Your task to perform on an android device: Open network settings Image 0: 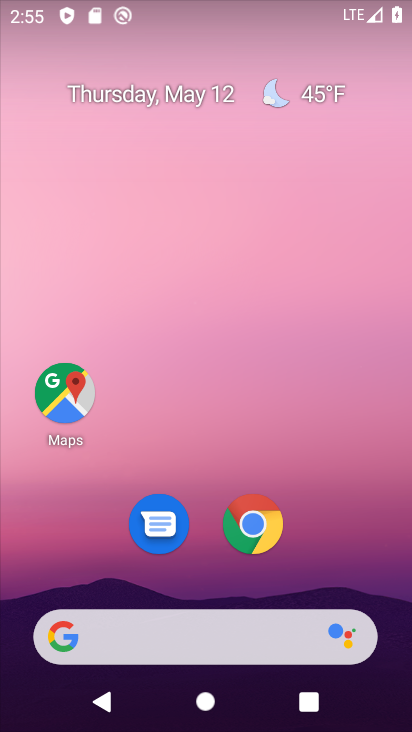
Step 0: drag from (239, 446) to (225, 15)
Your task to perform on an android device: Open network settings Image 1: 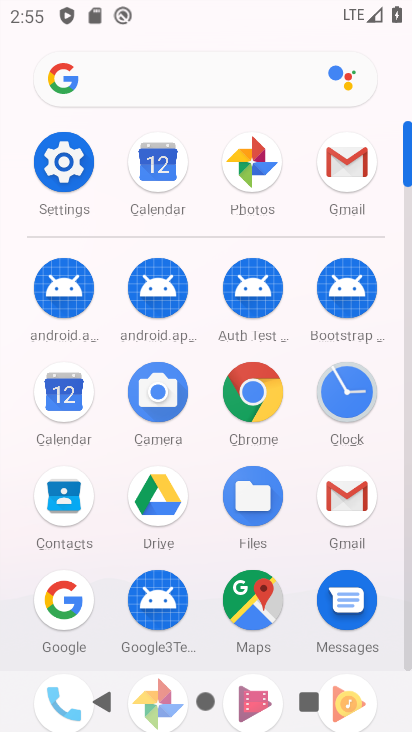
Step 1: click (159, 150)
Your task to perform on an android device: Open network settings Image 2: 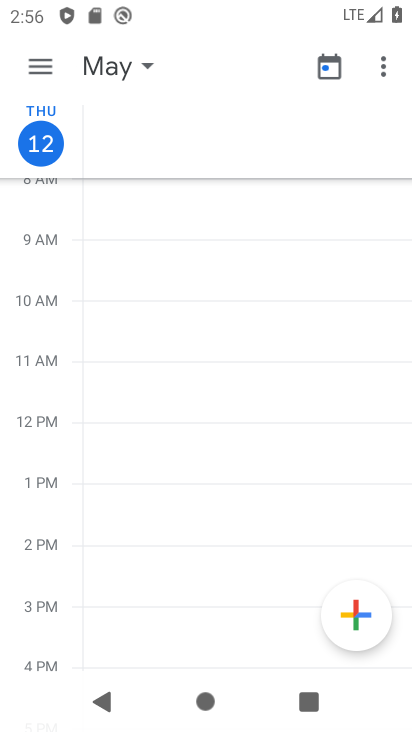
Step 2: press home button
Your task to perform on an android device: Open network settings Image 3: 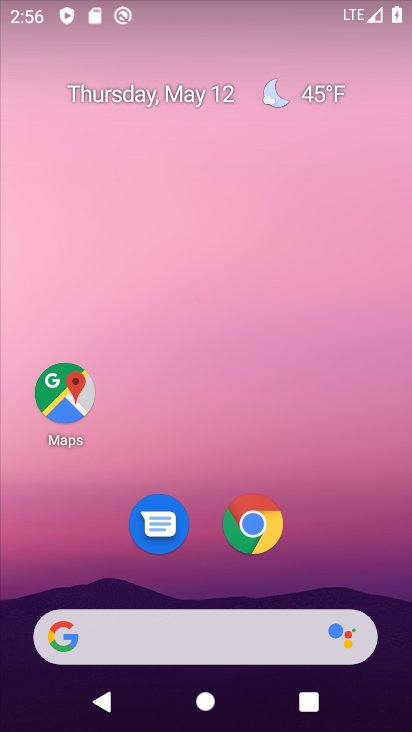
Step 3: drag from (221, 363) to (239, 36)
Your task to perform on an android device: Open network settings Image 4: 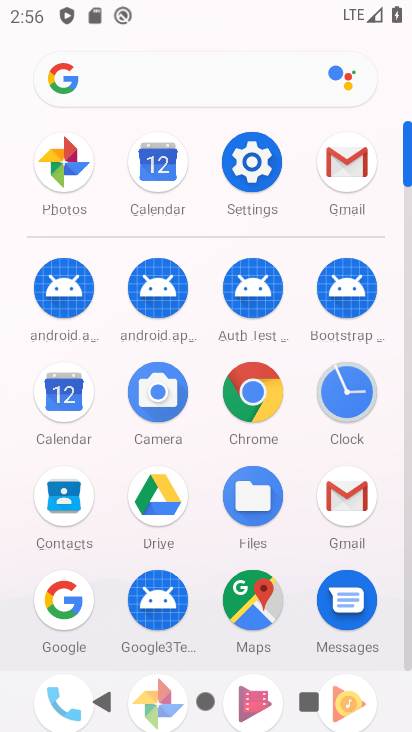
Step 4: click (254, 151)
Your task to perform on an android device: Open network settings Image 5: 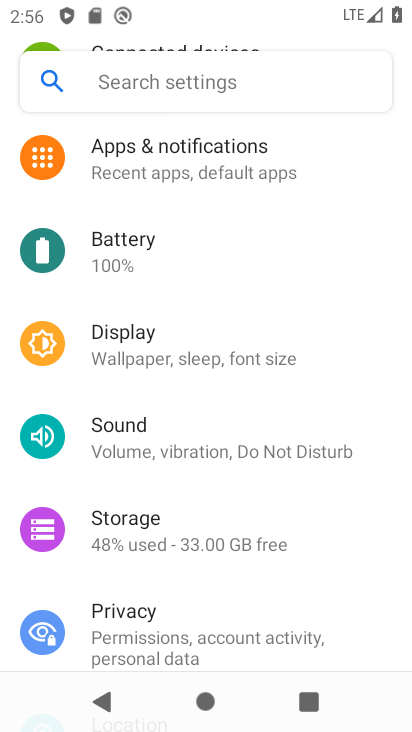
Step 5: drag from (235, 211) to (249, 455)
Your task to perform on an android device: Open network settings Image 6: 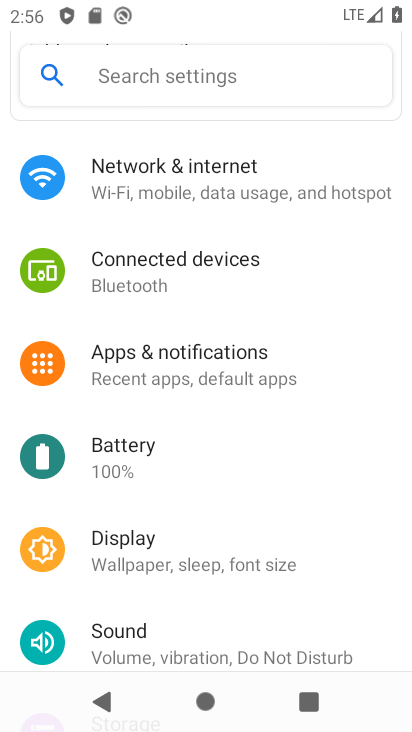
Step 6: click (255, 193)
Your task to perform on an android device: Open network settings Image 7: 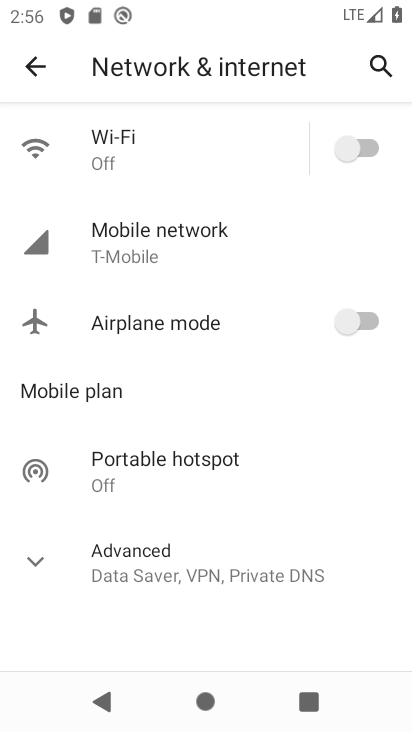
Step 7: task complete